Your task to perform on an android device: turn notification dots off Image 0: 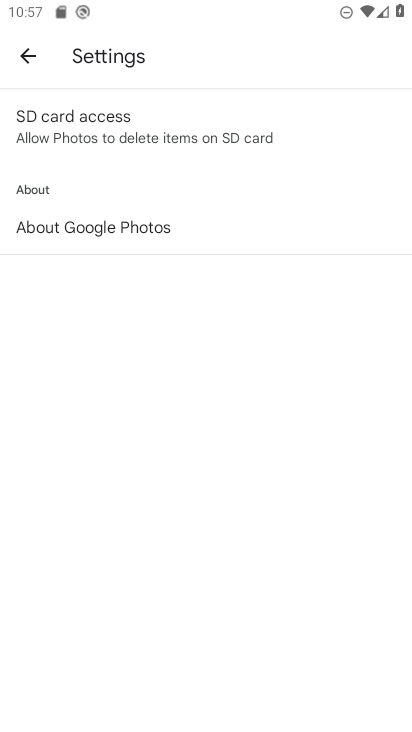
Step 0: click (152, 482)
Your task to perform on an android device: turn notification dots off Image 1: 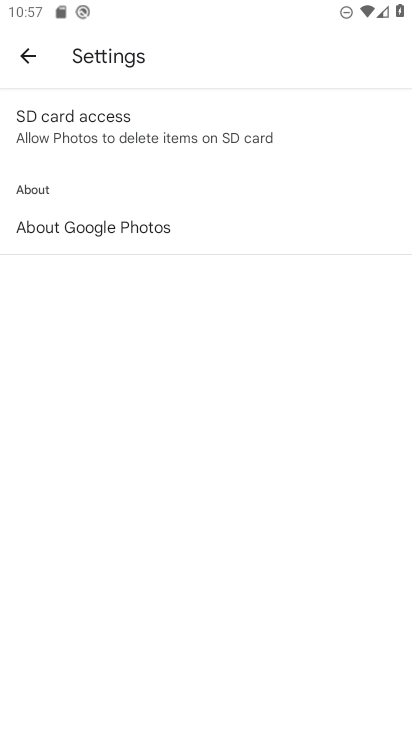
Step 1: press home button
Your task to perform on an android device: turn notification dots off Image 2: 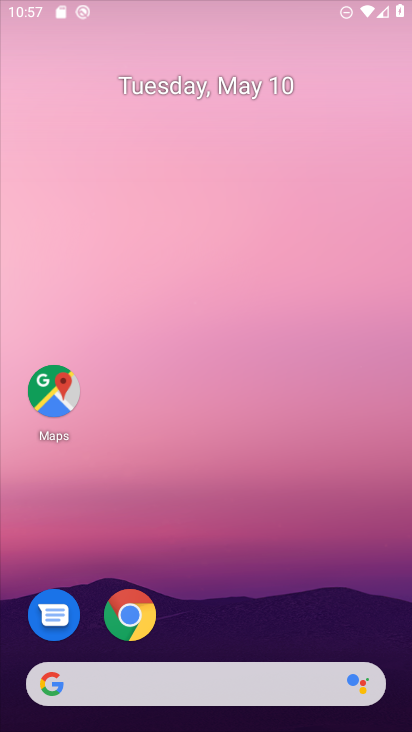
Step 2: drag from (219, 649) to (308, 204)
Your task to perform on an android device: turn notification dots off Image 3: 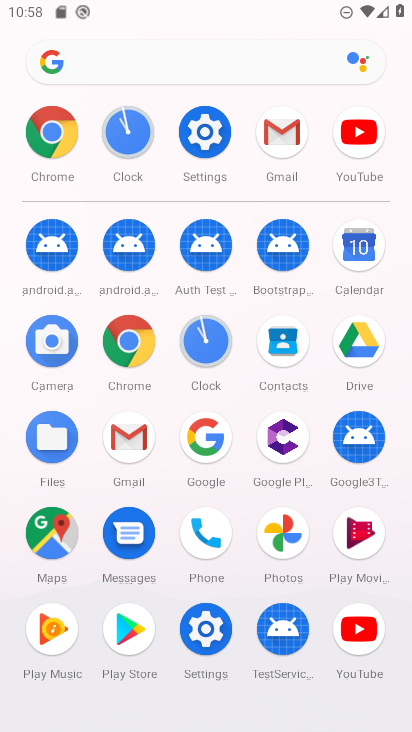
Step 3: click (201, 130)
Your task to perform on an android device: turn notification dots off Image 4: 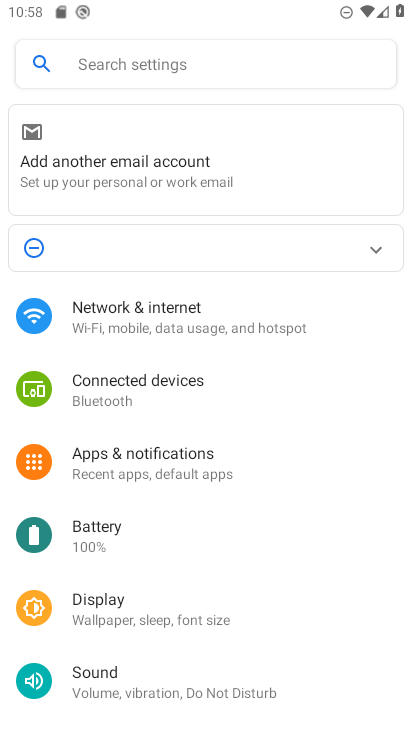
Step 4: click (176, 454)
Your task to perform on an android device: turn notification dots off Image 5: 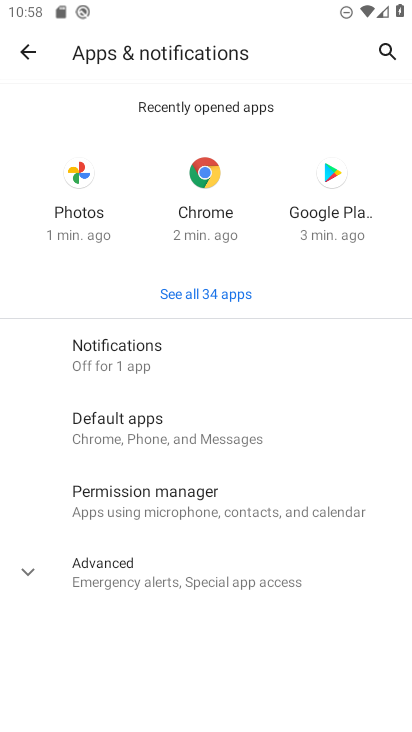
Step 5: click (142, 358)
Your task to perform on an android device: turn notification dots off Image 6: 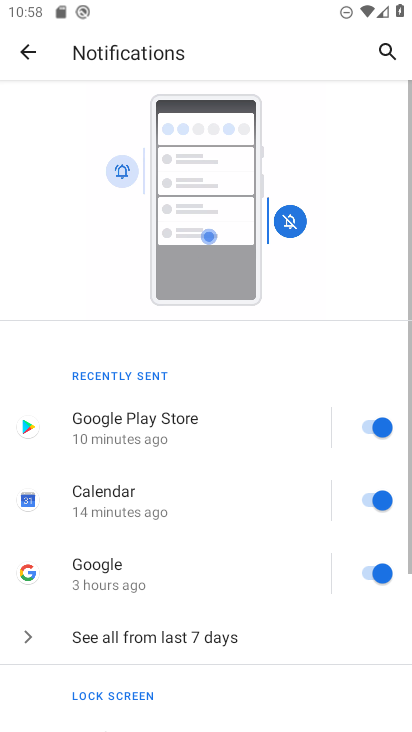
Step 6: drag from (234, 552) to (306, 74)
Your task to perform on an android device: turn notification dots off Image 7: 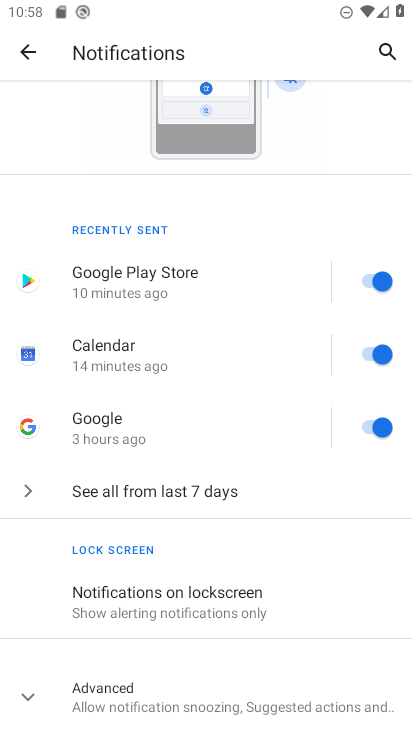
Step 7: click (147, 701)
Your task to perform on an android device: turn notification dots off Image 8: 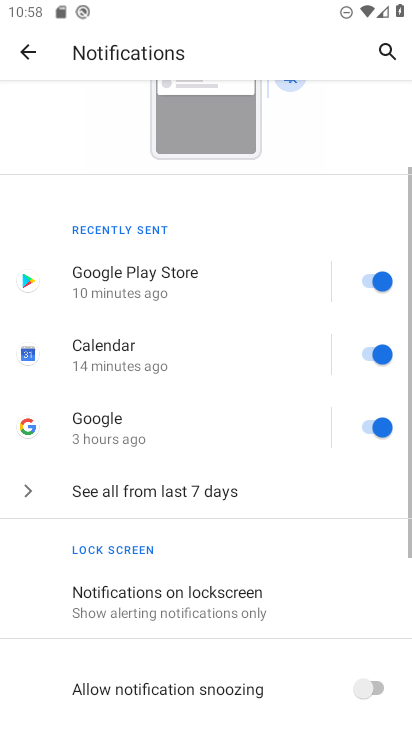
Step 8: task complete